Your task to perform on an android device: uninstall "Pluto TV - Live TV and Movies" Image 0: 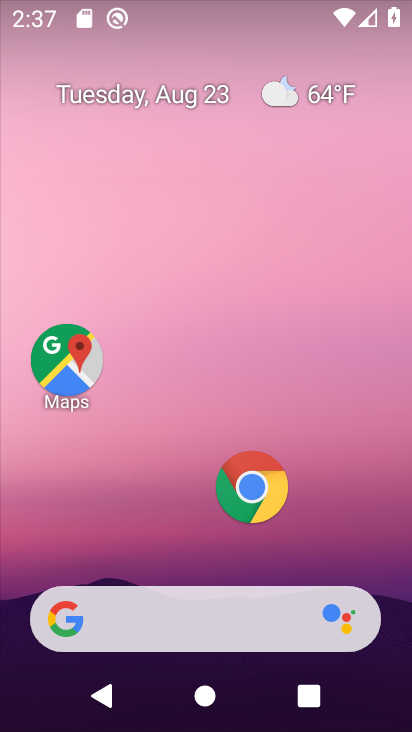
Step 0: drag from (189, 437) to (212, 113)
Your task to perform on an android device: uninstall "Pluto TV - Live TV and Movies" Image 1: 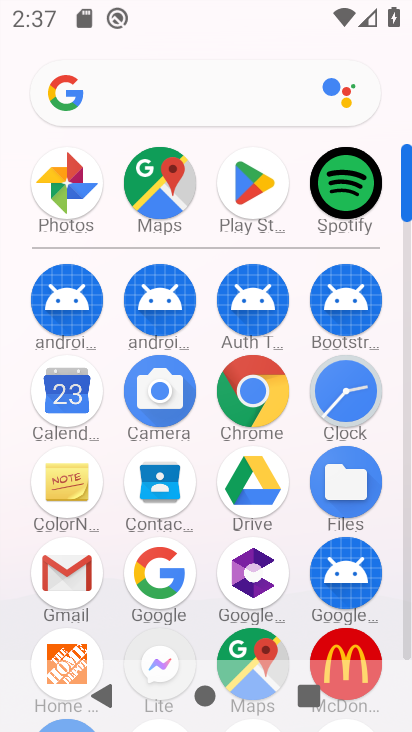
Step 1: click (261, 171)
Your task to perform on an android device: uninstall "Pluto TV - Live TV and Movies" Image 2: 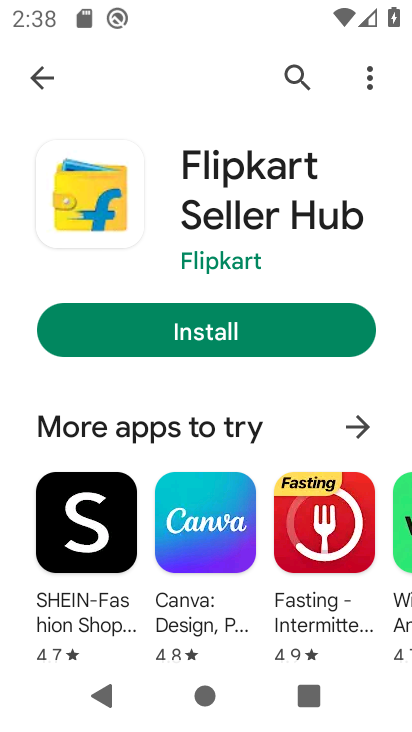
Step 2: click (48, 84)
Your task to perform on an android device: uninstall "Pluto TV - Live TV and Movies" Image 3: 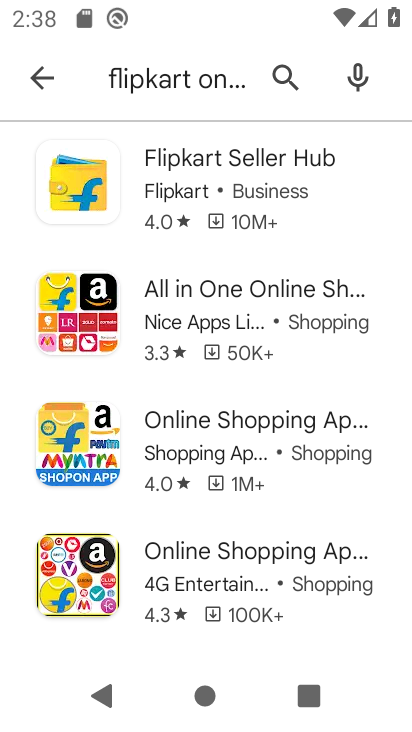
Step 3: click (57, 71)
Your task to perform on an android device: uninstall "Pluto TV - Live TV and Movies" Image 4: 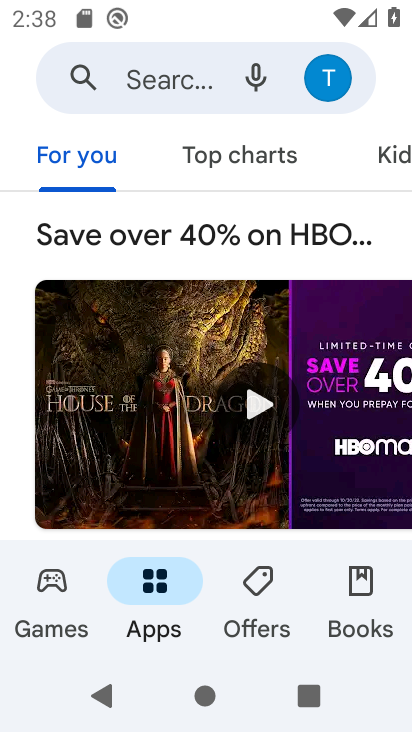
Step 4: drag from (160, 6) to (159, 53)
Your task to perform on an android device: uninstall "Pluto TV - Live TV and Movies" Image 5: 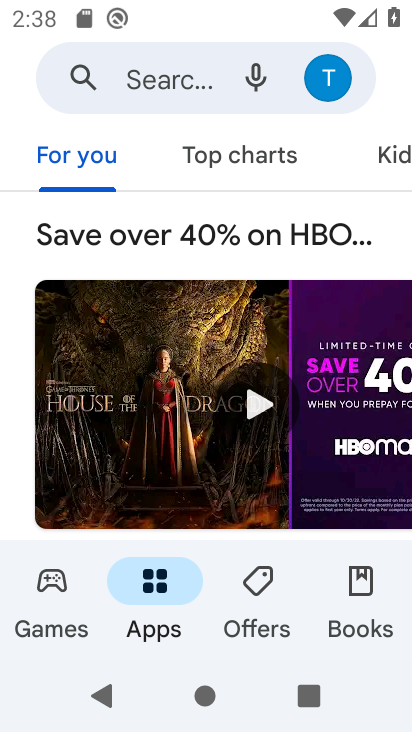
Step 5: click (201, 64)
Your task to perform on an android device: uninstall "Pluto TV - Live TV and Movies" Image 6: 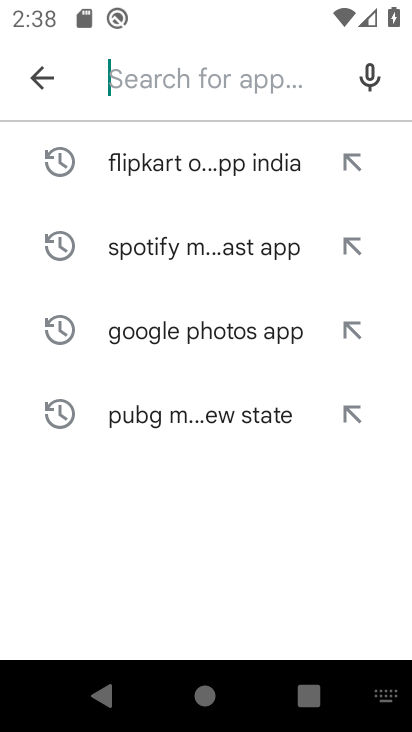
Step 6: type "Pluto TV - Live TV and Movies "
Your task to perform on an android device: uninstall "Pluto TV - Live TV and Movies" Image 7: 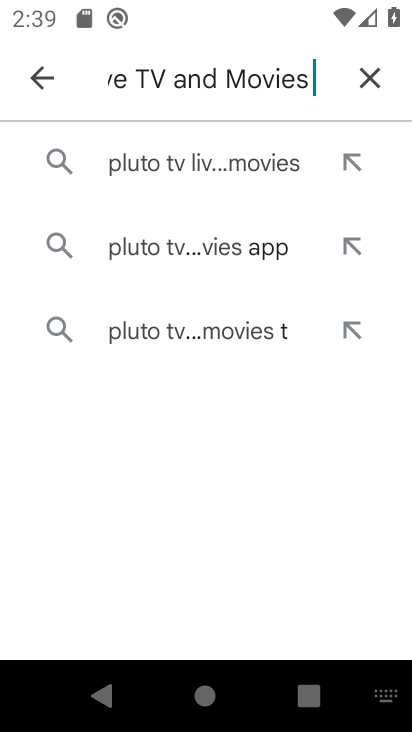
Step 7: click (218, 152)
Your task to perform on an android device: uninstall "Pluto TV - Live TV and Movies" Image 8: 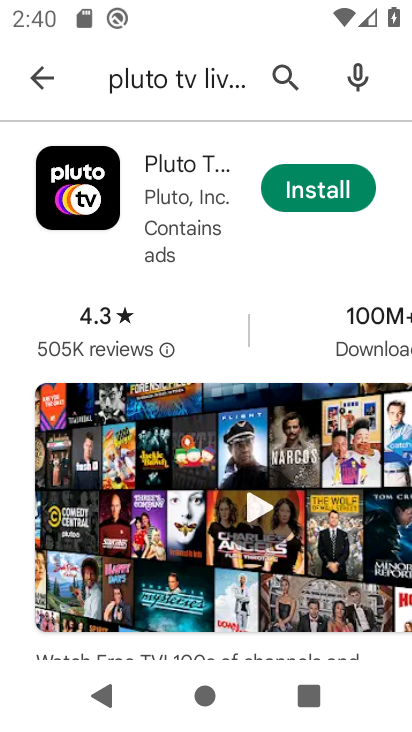
Step 8: task complete